Your task to perform on an android device: What's the weather going to be this weekend? Image 0: 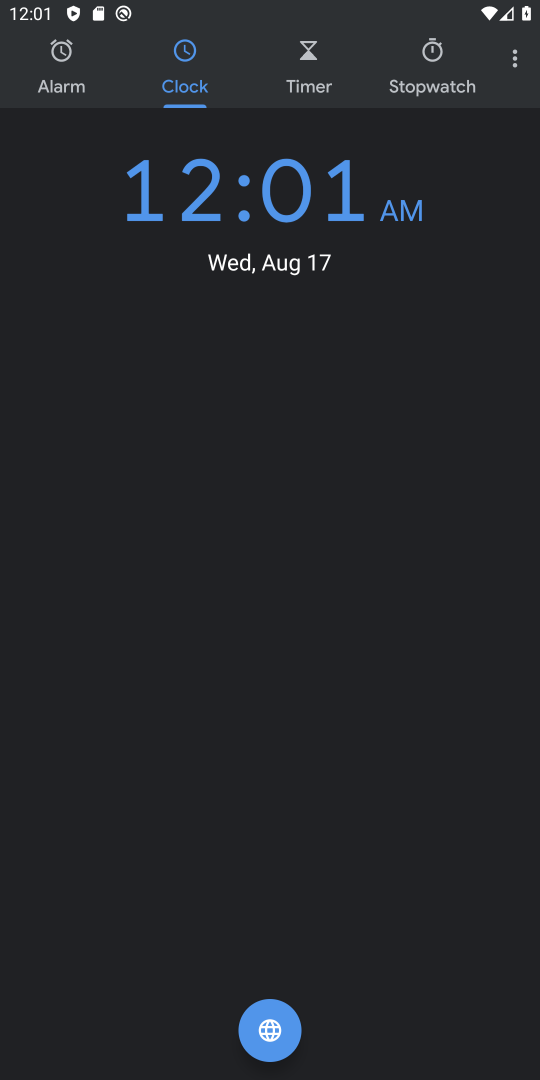
Step 0: press home button
Your task to perform on an android device: What's the weather going to be this weekend? Image 1: 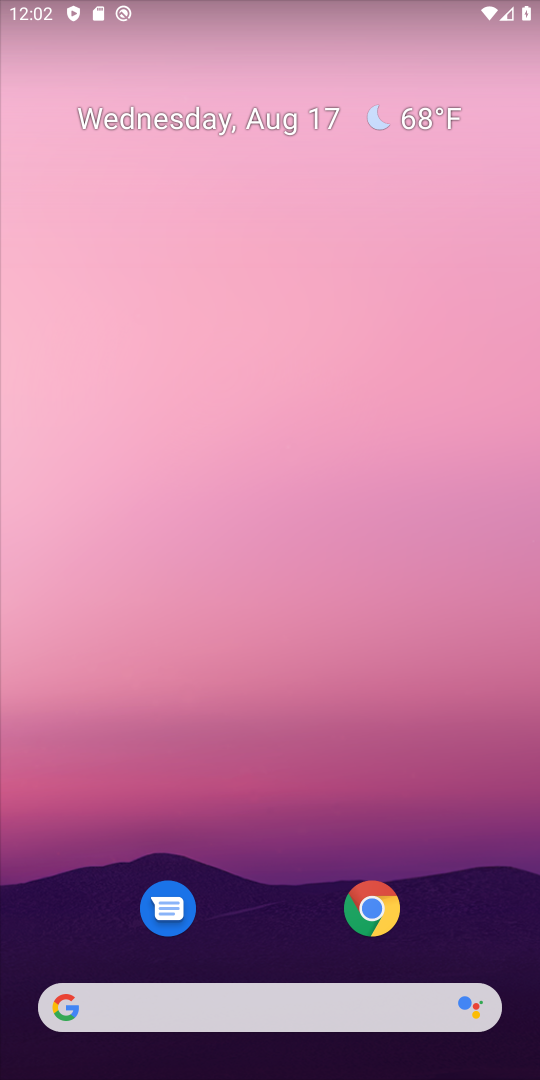
Step 1: drag from (279, 831) to (220, 160)
Your task to perform on an android device: What's the weather going to be this weekend? Image 2: 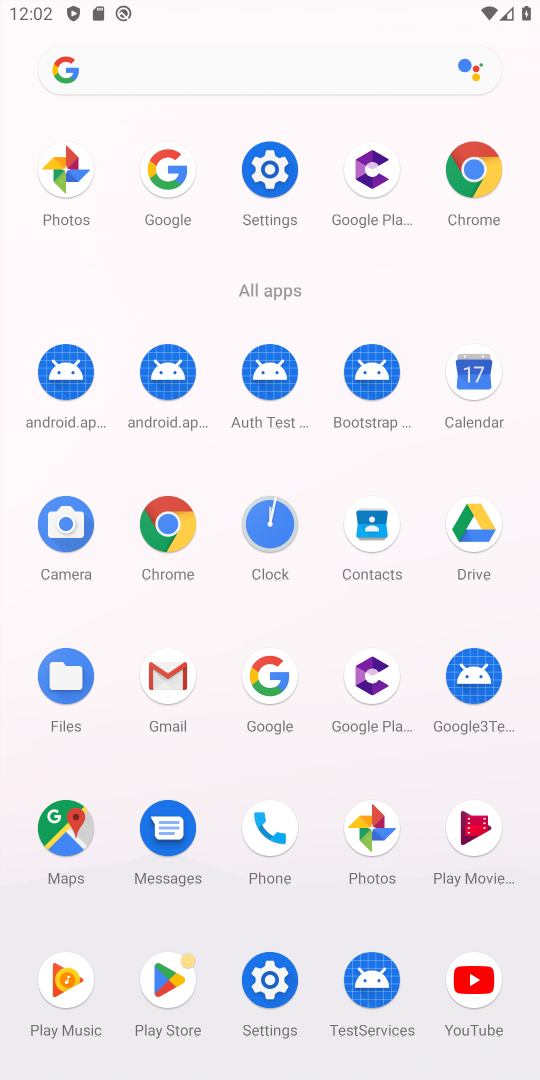
Step 2: click (278, 675)
Your task to perform on an android device: What's the weather going to be this weekend? Image 3: 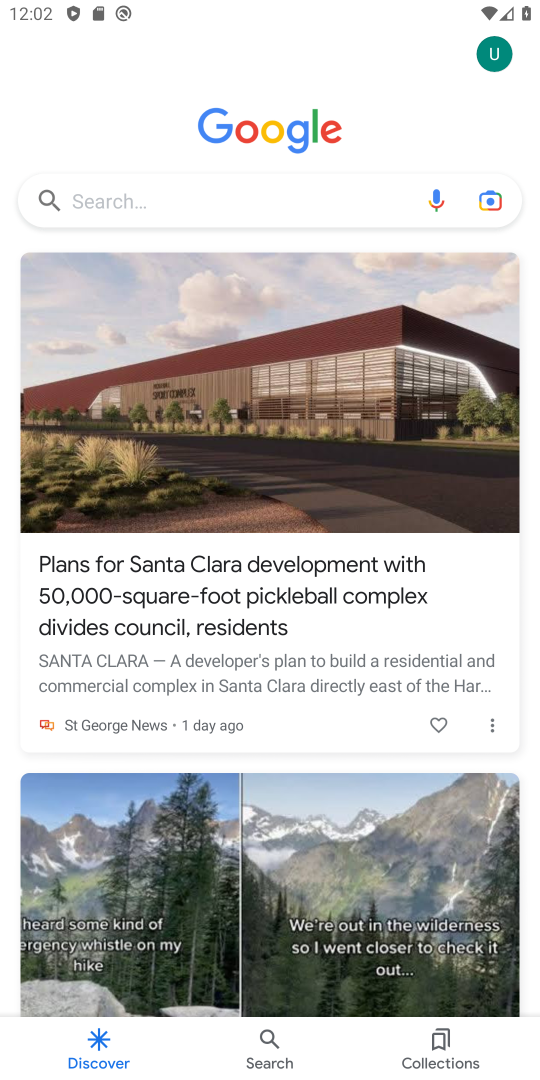
Step 3: click (267, 187)
Your task to perform on an android device: What's the weather going to be this weekend? Image 4: 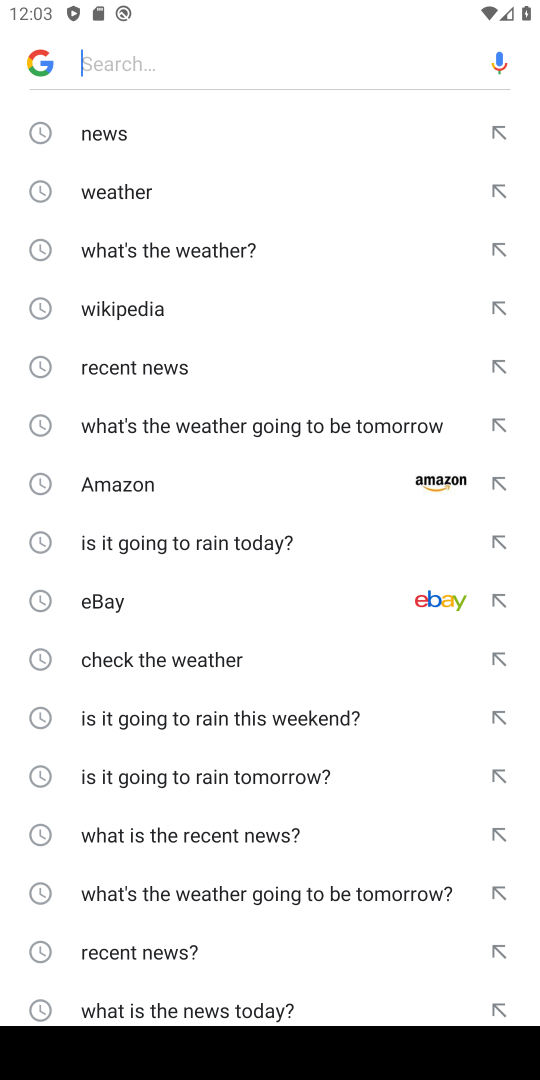
Step 4: click (150, 183)
Your task to perform on an android device: What's the weather going to be this weekend? Image 5: 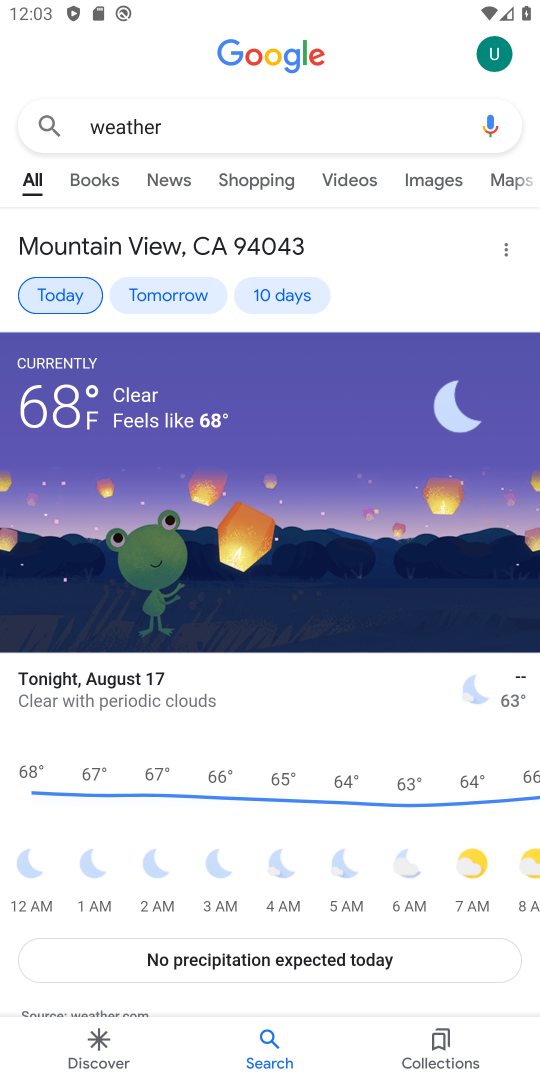
Step 5: click (274, 283)
Your task to perform on an android device: What's the weather going to be this weekend? Image 6: 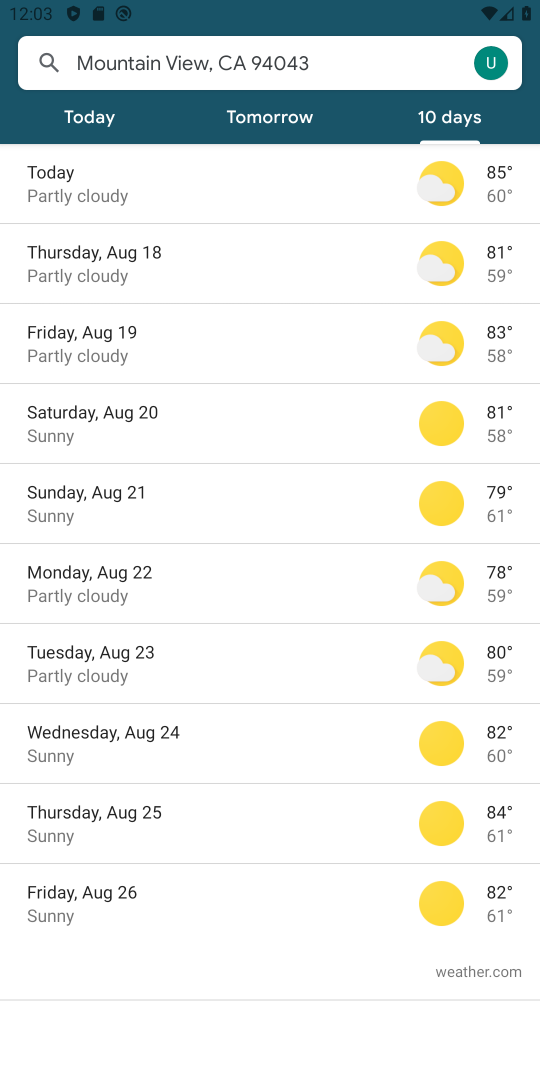
Step 6: task complete